Your task to perform on an android device: open app "Paramount+ | Peak Streaming" (install if not already installed) and enter user name: "fostered@yahoo.com" and password: "strong" Image 0: 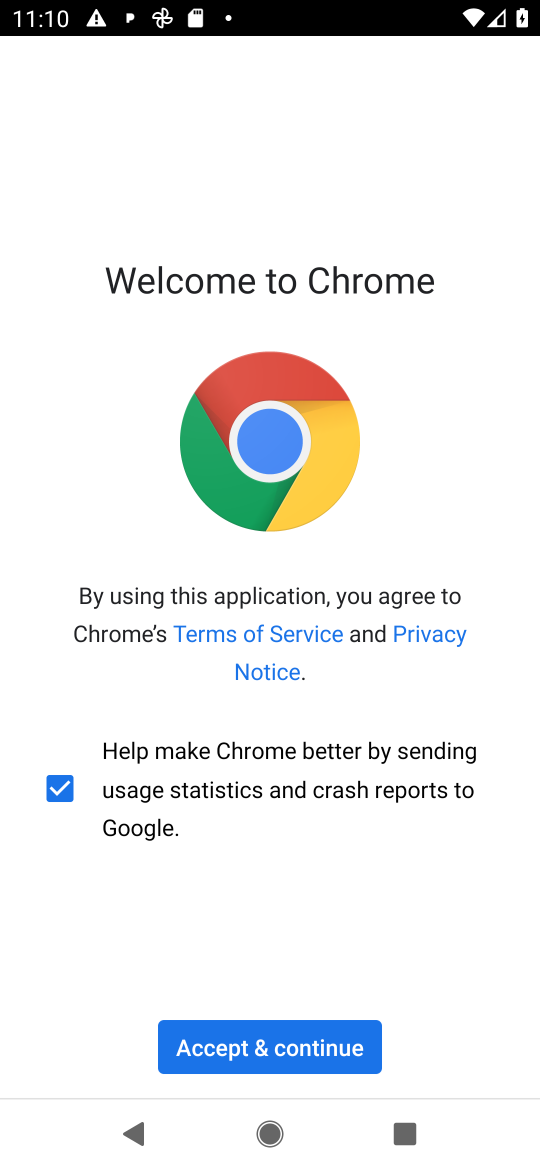
Step 0: press home button
Your task to perform on an android device: open app "Paramount+ | Peak Streaming" (install if not already installed) and enter user name: "fostered@yahoo.com" and password: "strong" Image 1: 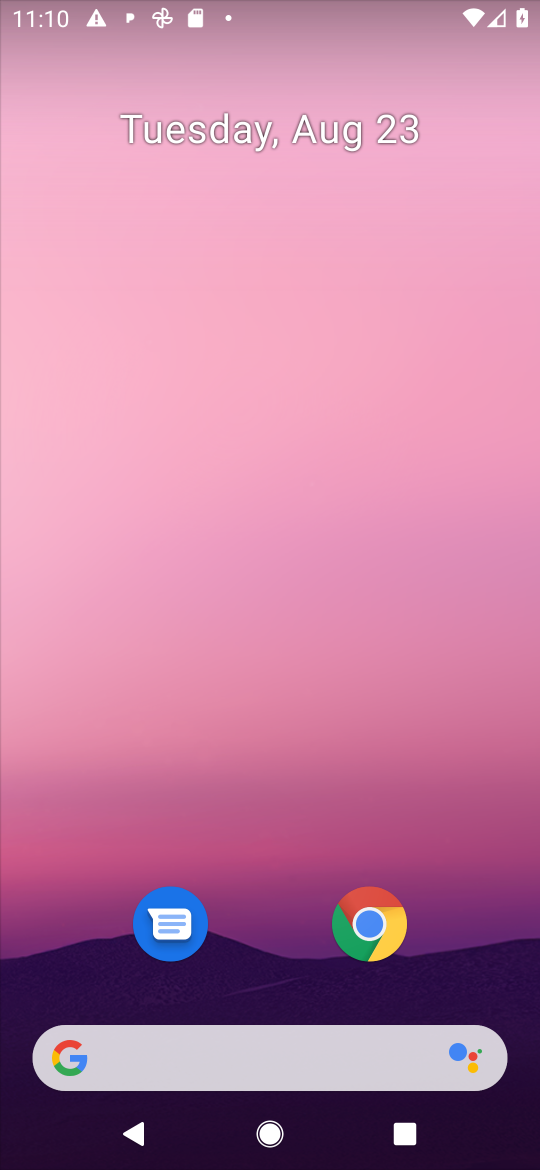
Step 1: drag from (441, 866) to (433, 108)
Your task to perform on an android device: open app "Paramount+ | Peak Streaming" (install if not already installed) and enter user name: "fostered@yahoo.com" and password: "strong" Image 2: 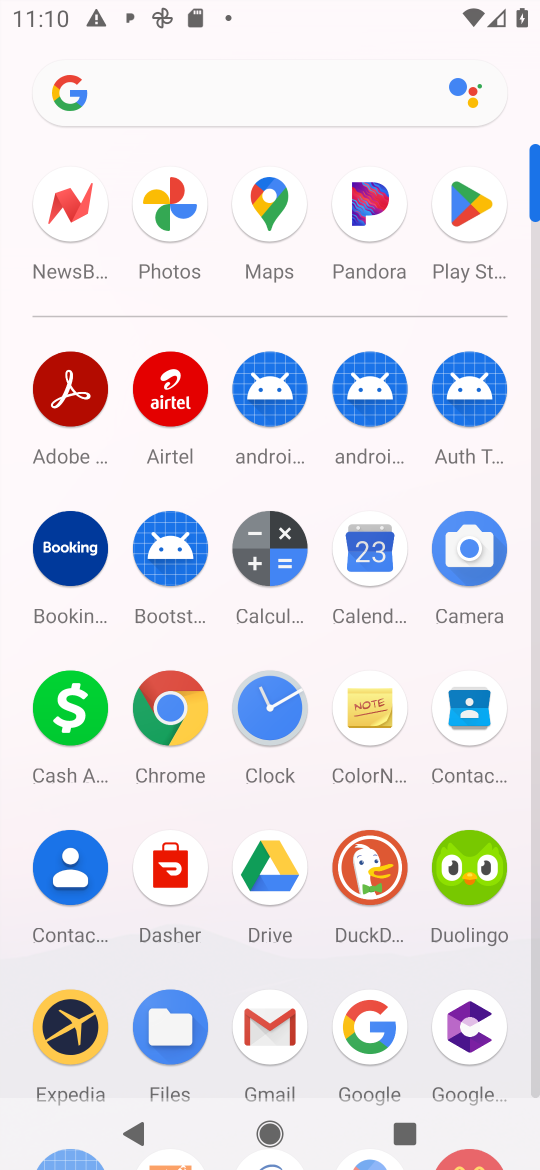
Step 2: click (469, 219)
Your task to perform on an android device: open app "Paramount+ | Peak Streaming" (install if not already installed) and enter user name: "fostered@yahoo.com" and password: "strong" Image 3: 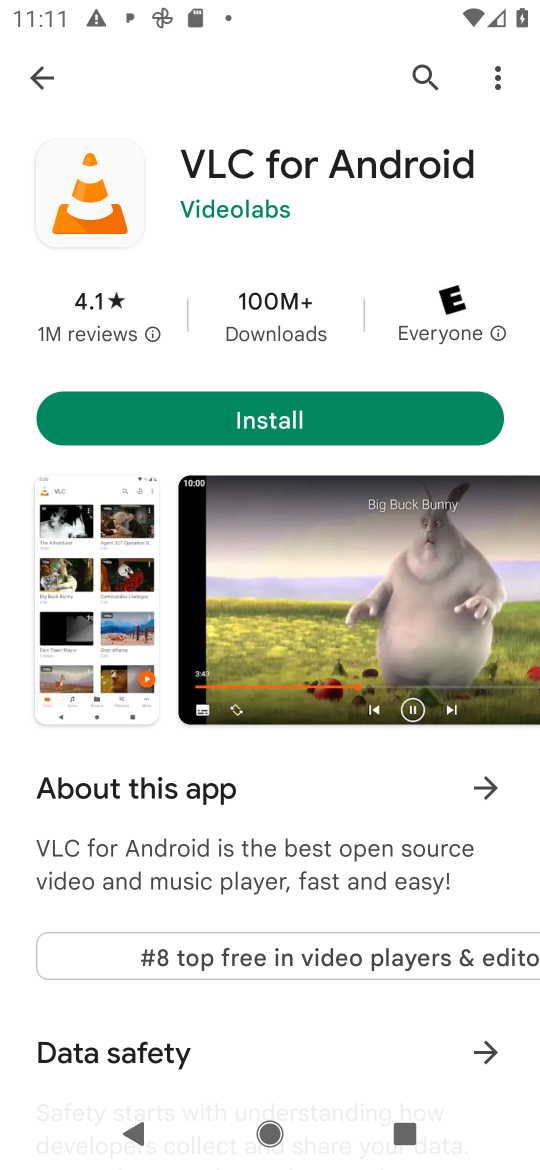
Step 3: press back button
Your task to perform on an android device: open app "Paramount+ | Peak Streaming" (install if not already installed) and enter user name: "fostered@yahoo.com" and password: "strong" Image 4: 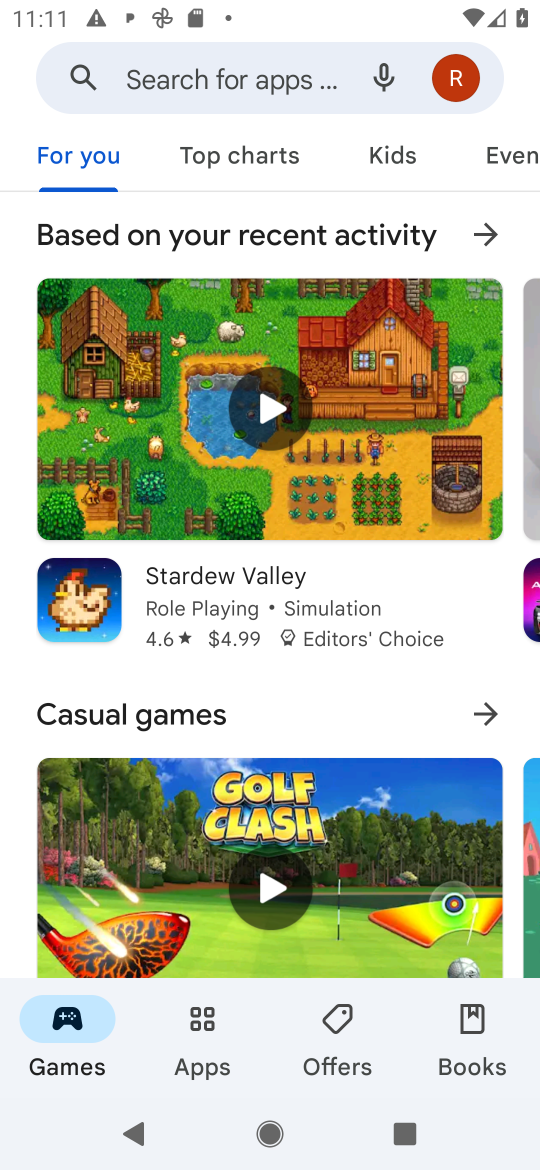
Step 4: click (216, 81)
Your task to perform on an android device: open app "Paramount+ | Peak Streaming" (install if not already installed) and enter user name: "fostered@yahoo.com" and password: "strong" Image 5: 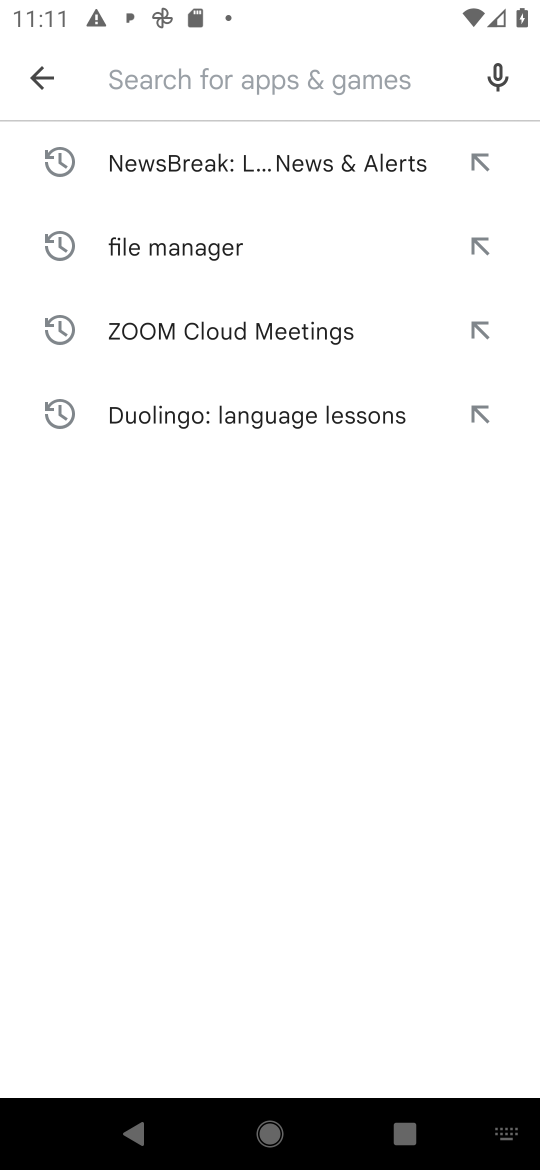
Step 5: press enter
Your task to perform on an android device: open app "Paramount+ | Peak Streaming" (install if not already installed) and enter user name: "fostered@yahoo.com" and password: "strong" Image 6: 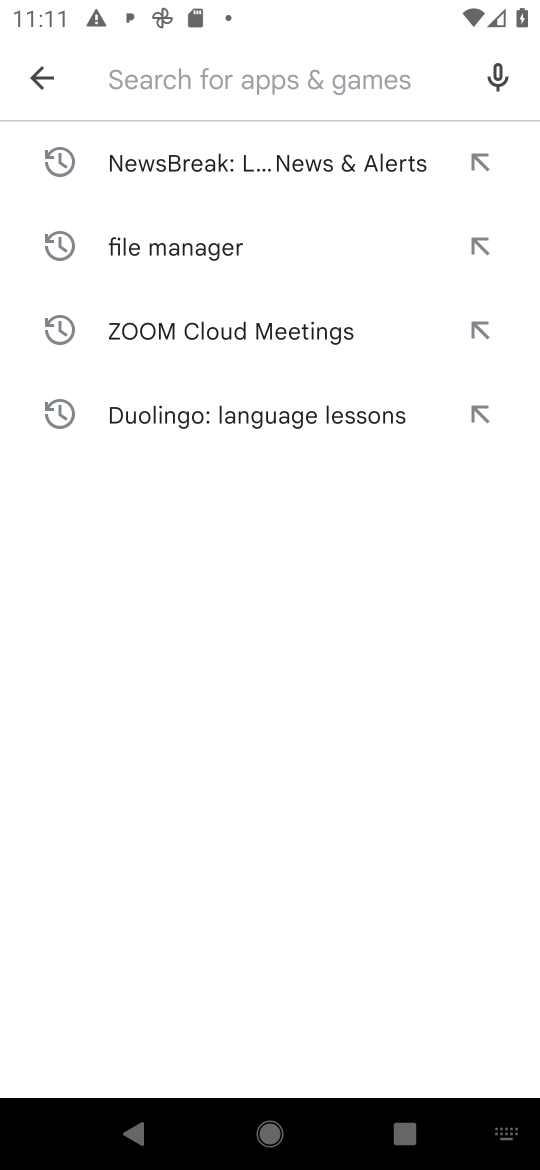
Step 6: type "Paramount+ | Peak Streaming"
Your task to perform on an android device: open app "Paramount+ | Peak Streaming" (install if not already installed) and enter user name: "fostered@yahoo.com" and password: "strong" Image 7: 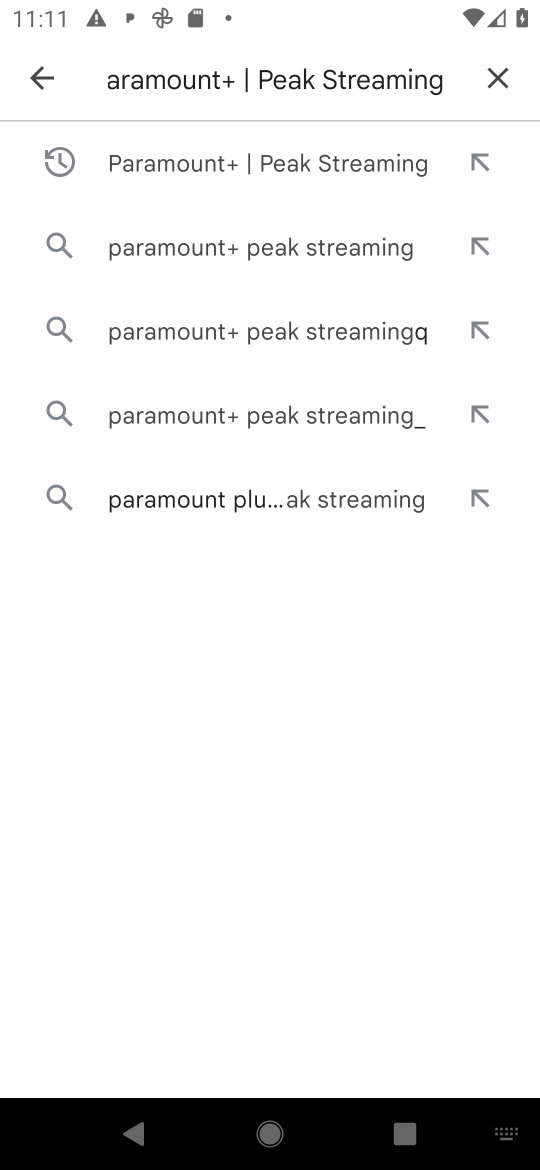
Step 7: click (356, 165)
Your task to perform on an android device: open app "Paramount+ | Peak Streaming" (install if not already installed) and enter user name: "fostered@yahoo.com" and password: "strong" Image 8: 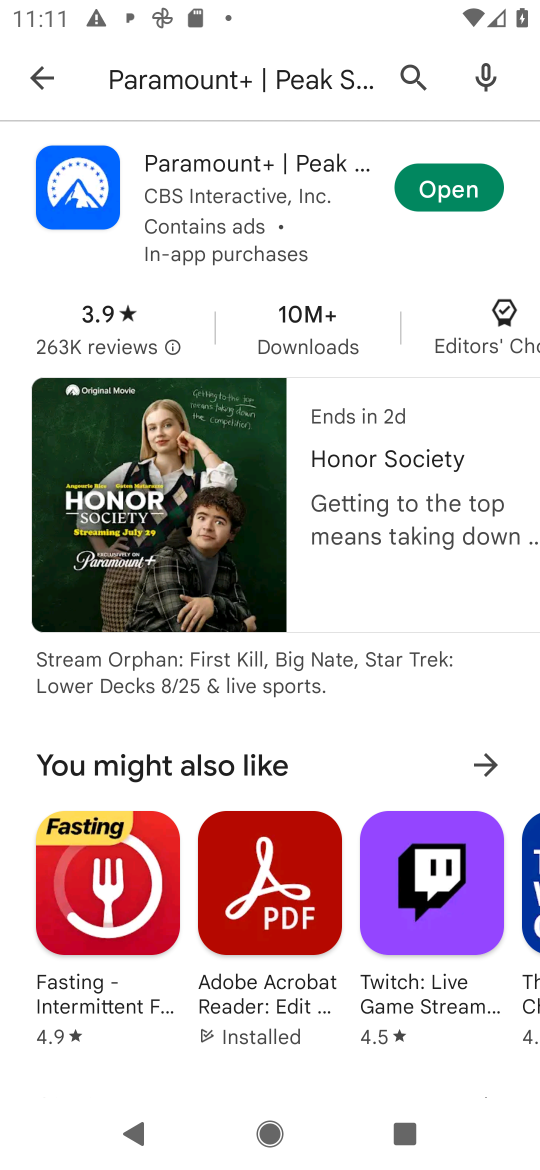
Step 8: click (449, 188)
Your task to perform on an android device: open app "Paramount+ | Peak Streaming" (install if not already installed) and enter user name: "fostered@yahoo.com" and password: "strong" Image 9: 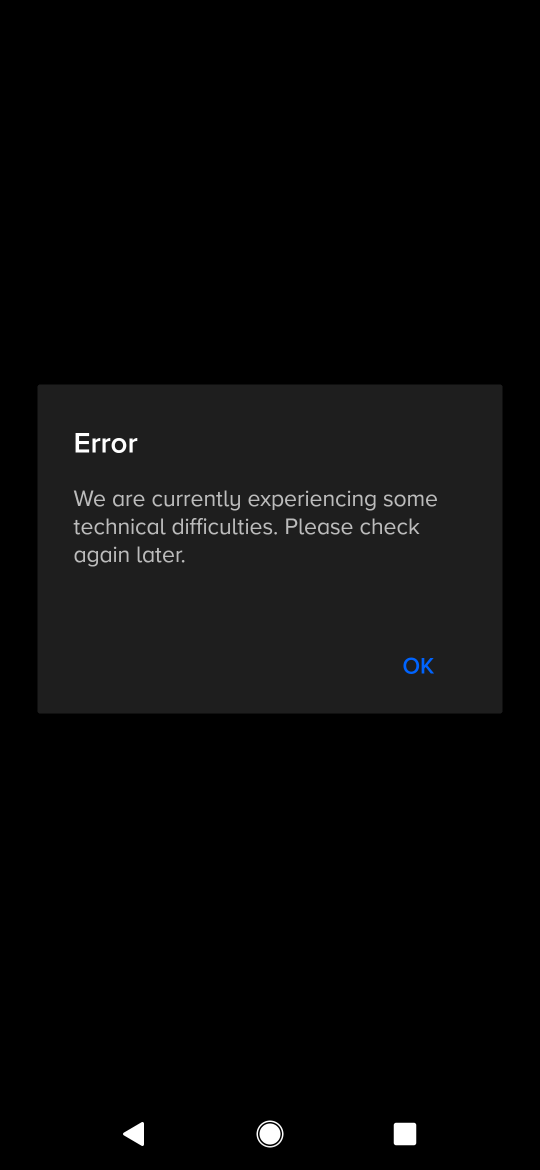
Step 9: task complete